Your task to perform on an android device: change notifications settings Image 0: 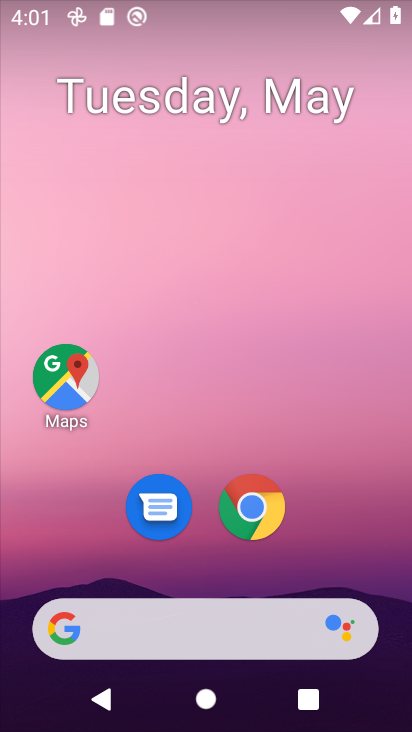
Step 0: drag from (321, 546) to (280, 120)
Your task to perform on an android device: change notifications settings Image 1: 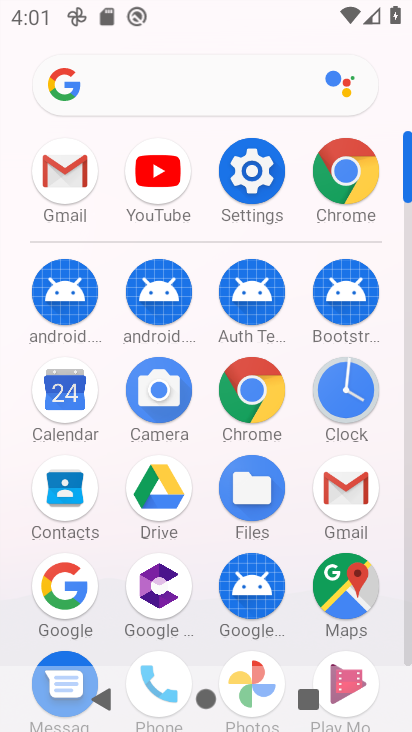
Step 1: click (233, 176)
Your task to perform on an android device: change notifications settings Image 2: 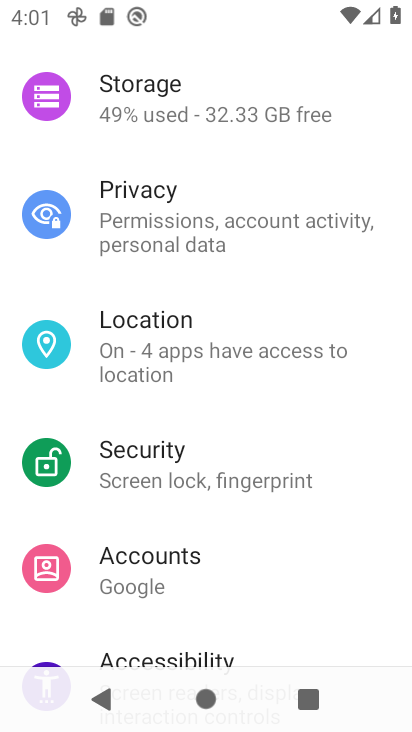
Step 2: drag from (237, 394) to (238, 521)
Your task to perform on an android device: change notifications settings Image 3: 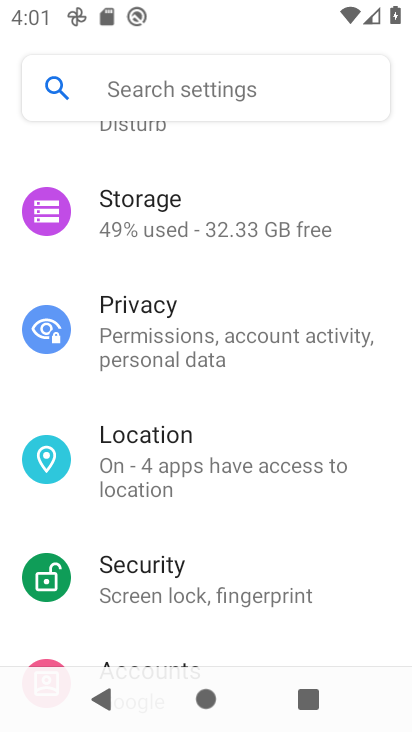
Step 3: drag from (299, 354) to (302, 524)
Your task to perform on an android device: change notifications settings Image 4: 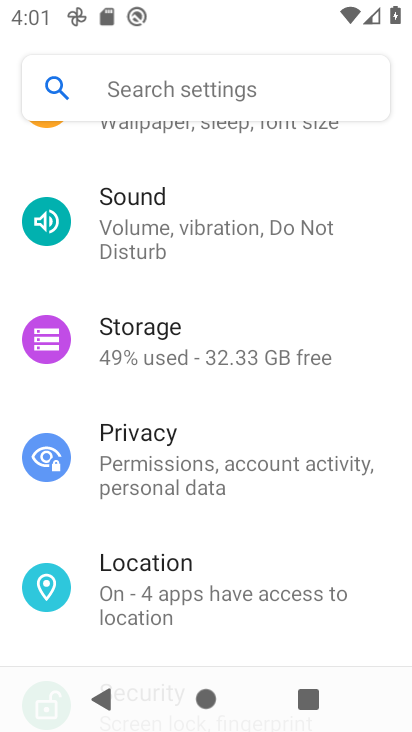
Step 4: drag from (241, 315) to (295, 514)
Your task to perform on an android device: change notifications settings Image 5: 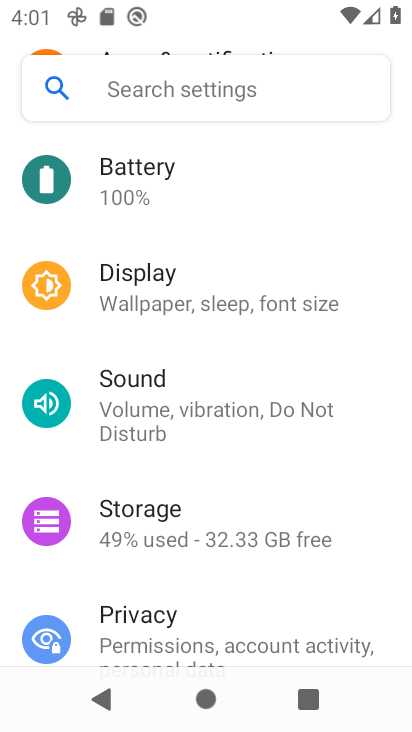
Step 5: drag from (246, 381) to (276, 498)
Your task to perform on an android device: change notifications settings Image 6: 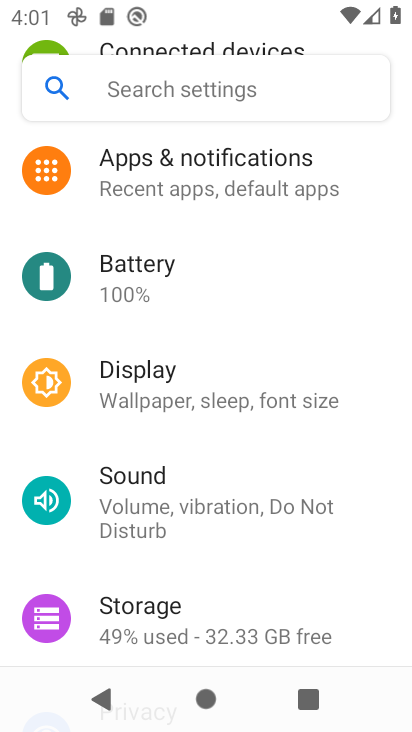
Step 6: click (216, 189)
Your task to perform on an android device: change notifications settings Image 7: 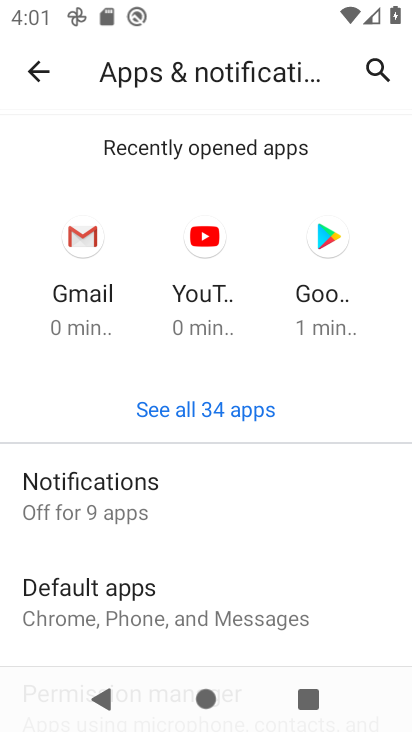
Step 7: click (167, 475)
Your task to perform on an android device: change notifications settings Image 8: 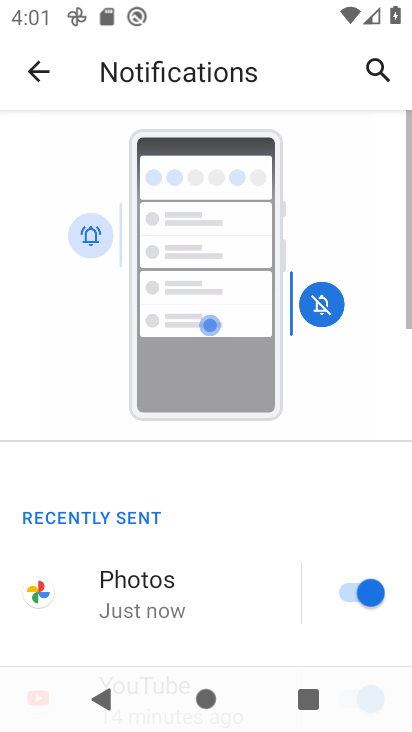
Step 8: drag from (171, 623) to (166, 170)
Your task to perform on an android device: change notifications settings Image 9: 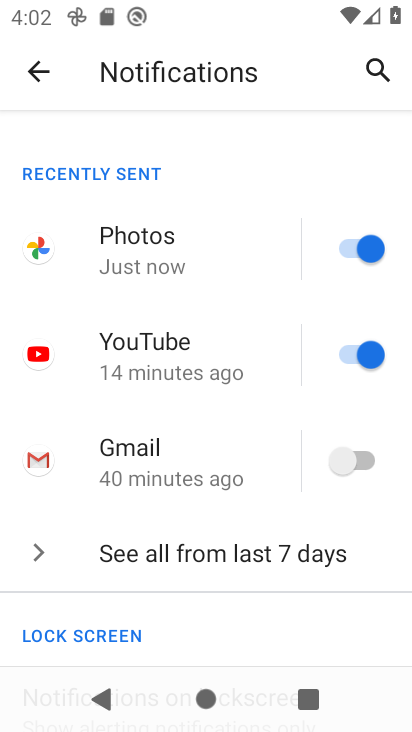
Step 9: click (182, 553)
Your task to perform on an android device: change notifications settings Image 10: 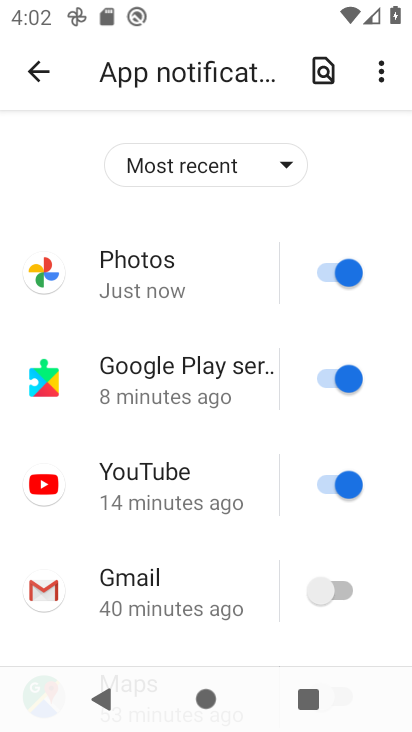
Step 10: click (354, 258)
Your task to perform on an android device: change notifications settings Image 11: 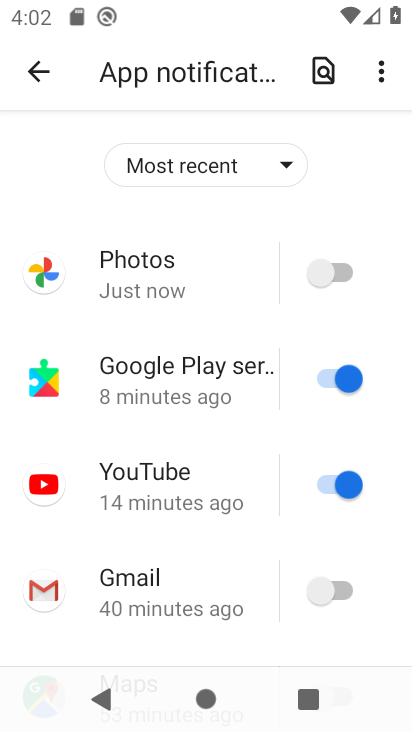
Step 11: click (333, 380)
Your task to perform on an android device: change notifications settings Image 12: 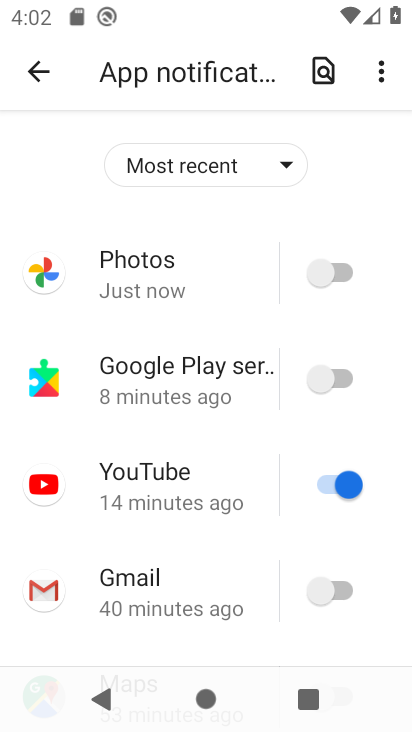
Step 12: click (321, 476)
Your task to perform on an android device: change notifications settings Image 13: 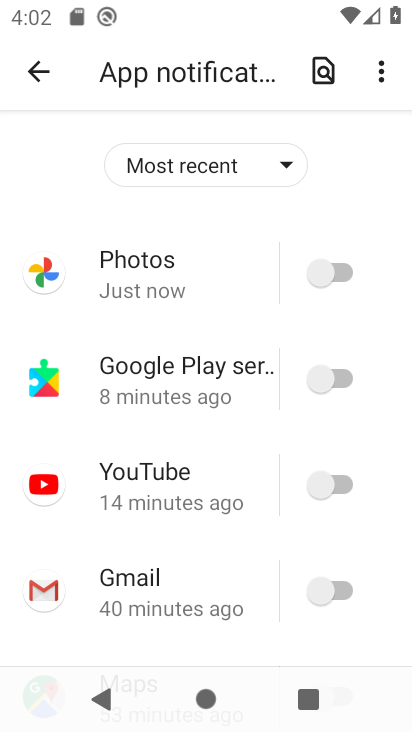
Step 13: click (343, 599)
Your task to perform on an android device: change notifications settings Image 14: 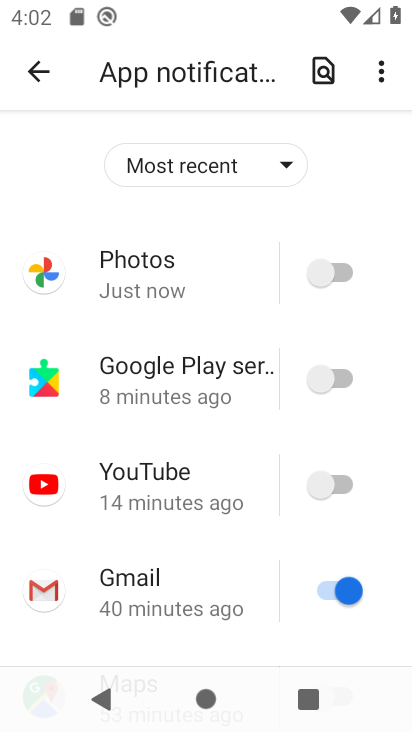
Step 14: drag from (226, 592) to (237, 245)
Your task to perform on an android device: change notifications settings Image 15: 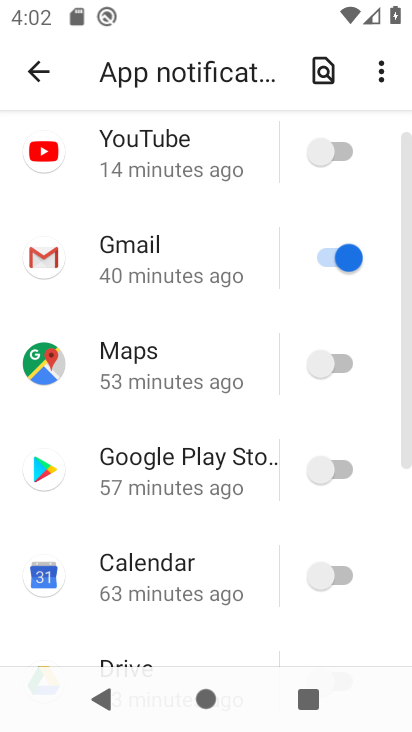
Step 15: click (324, 373)
Your task to perform on an android device: change notifications settings Image 16: 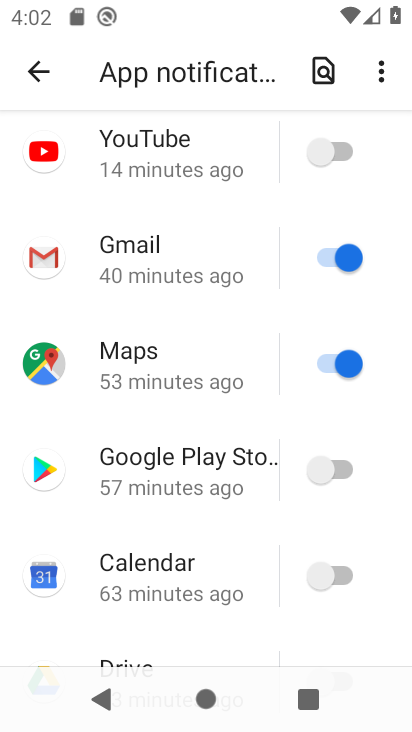
Step 16: click (325, 481)
Your task to perform on an android device: change notifications settings Image 17: 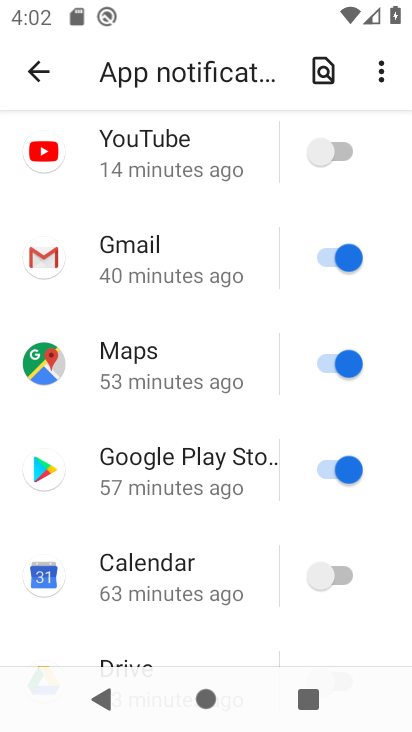
Step 17: click (348, 574)
Your task to perform on an android device: change notifications settings Image 18: 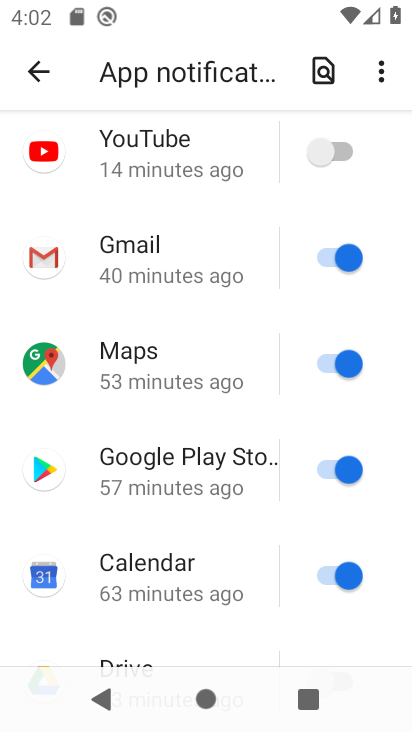
Step 18: drag from (264, 526) to (277, 149)
Your task to perform on an android device: change notifications settings Image 19: 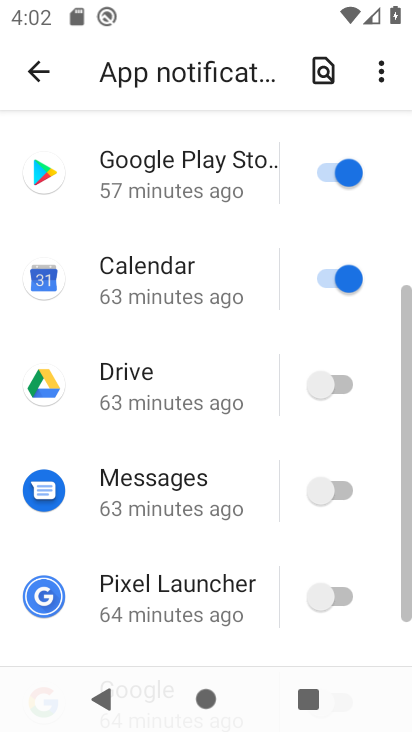
Step 19: click (326, 379)
Your task to perform on an android device: change notifications settings Image 20: 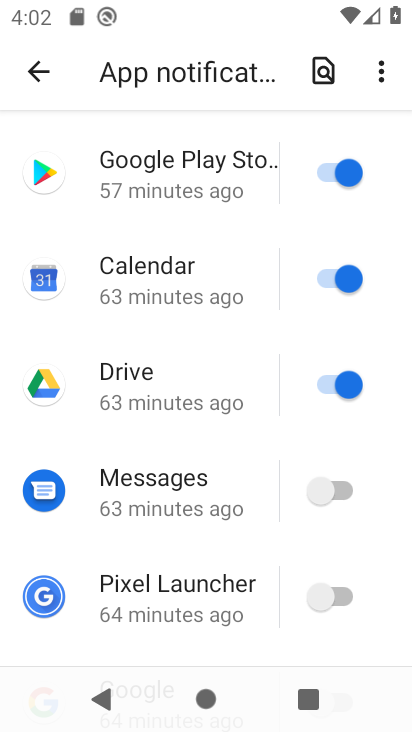
Step 20: click (317, 503)
Your task to perform on an android device: change notifications settings Image 21: 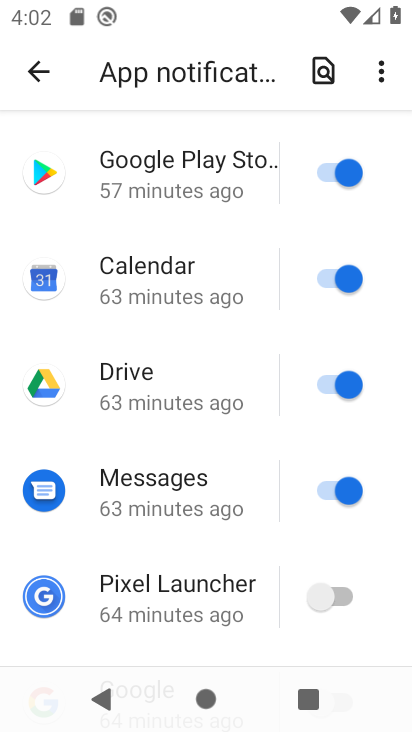
Step 21: click (342, 595)
Your task to perform on an android device: change notifications settings Image 22: 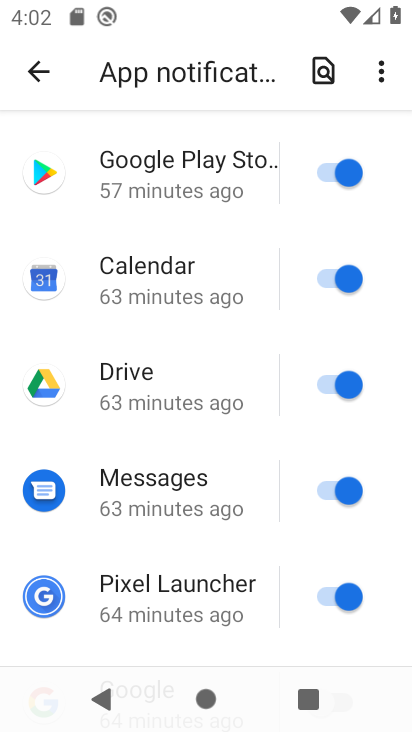
Step 22: drag from (179, 585) to (205, 220)
Your task to perform on an android device: change notifications settings Image 23: 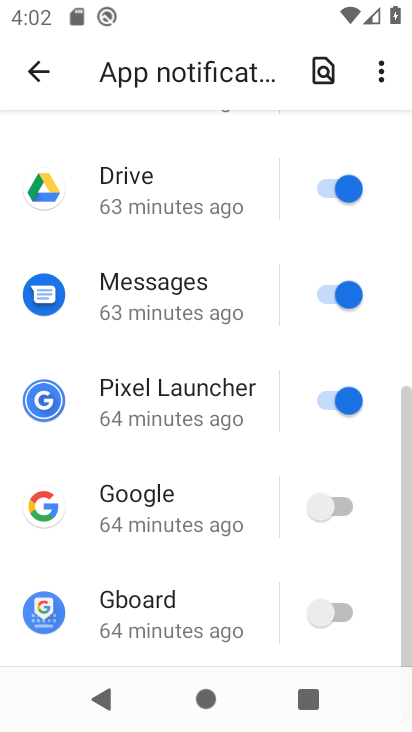
Step 23: click (308, 516)
Your task to perform on an android device: change notifications settings Image 24: 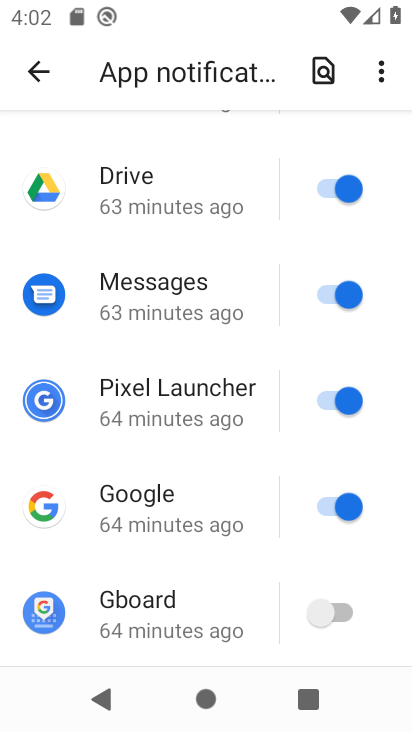
Step 24: click (324, 626)
Your task to perform on an android device: change notifications settings Image 25: 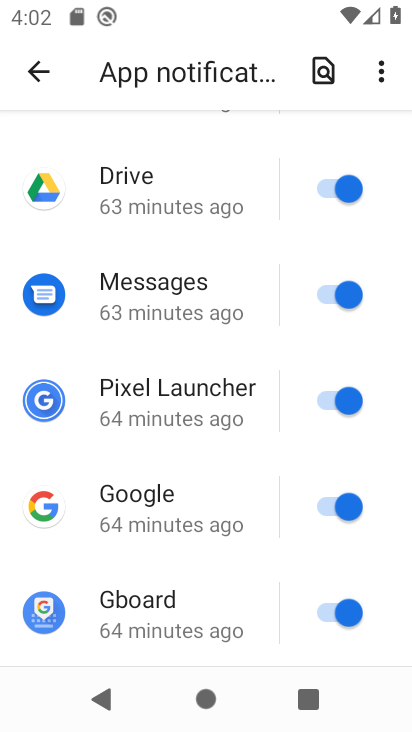
Step 25: click (56, 89)
Your task to perform on an android device: change notifications settings Image 26: 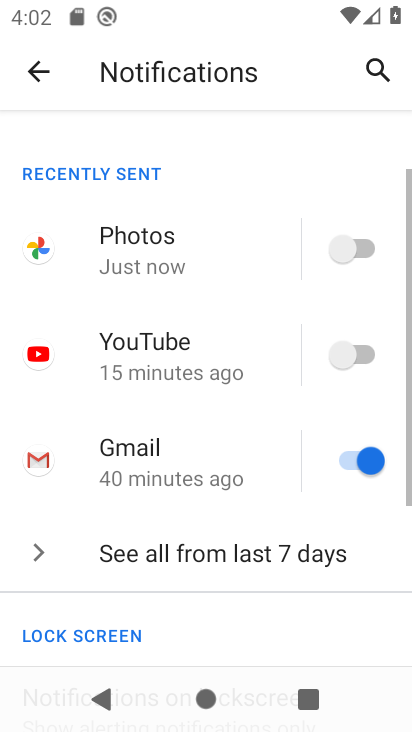
Step 26: drag from (214, 559) to (222, 87)
Your task to perform on an android device: change notifications settings Image 27: 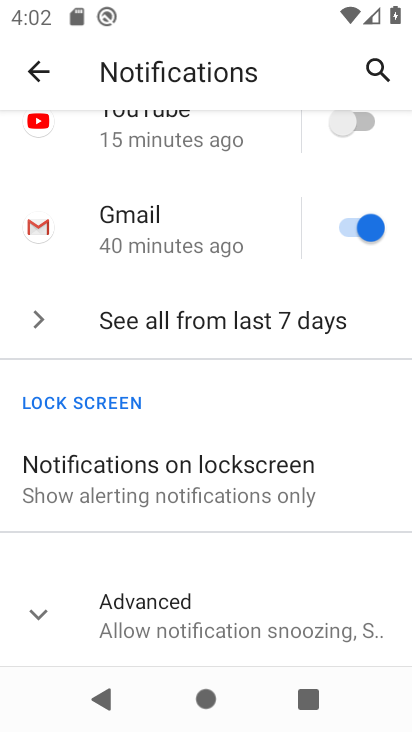
Step 27: click (118, 488)
Your task to perform on an android device: change notifications settings Image 28: 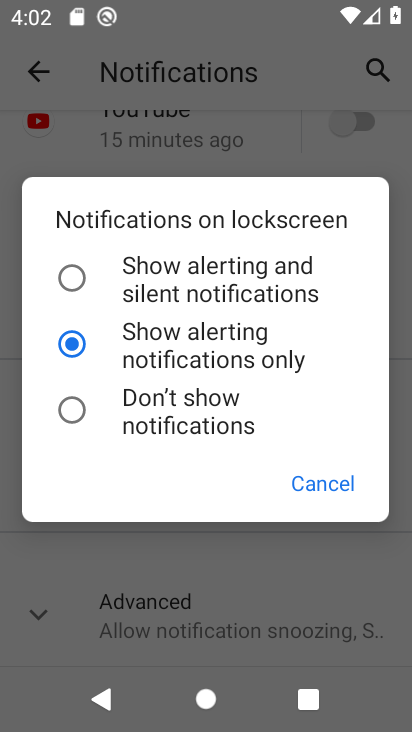
Step 28: click (124, 262)
Your task to perform on an android device: change notifications settings Image 29: 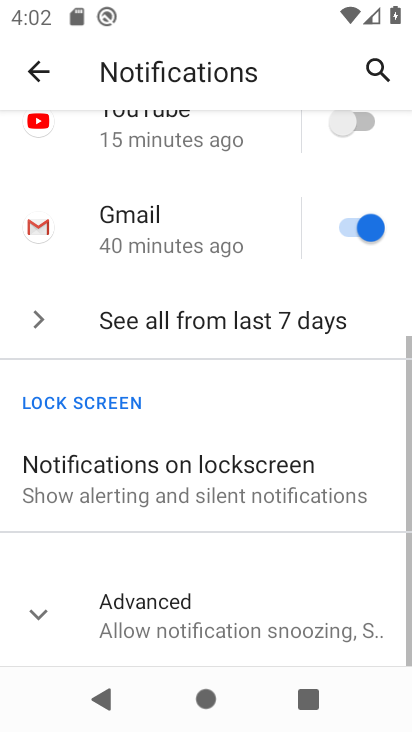
Step 29: click (124, 589)
Your task to perform on an android device: change notifications settings Image 30: 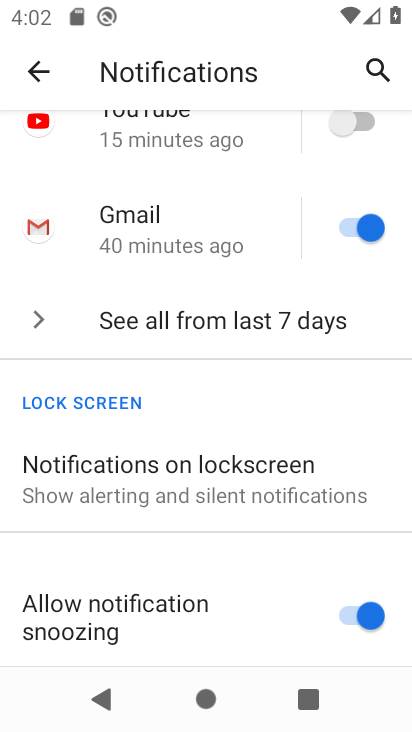
Step 30: drag from (83, 556) to (218, 59)
Your task to perform on an android device: change notifications settings Image 31: 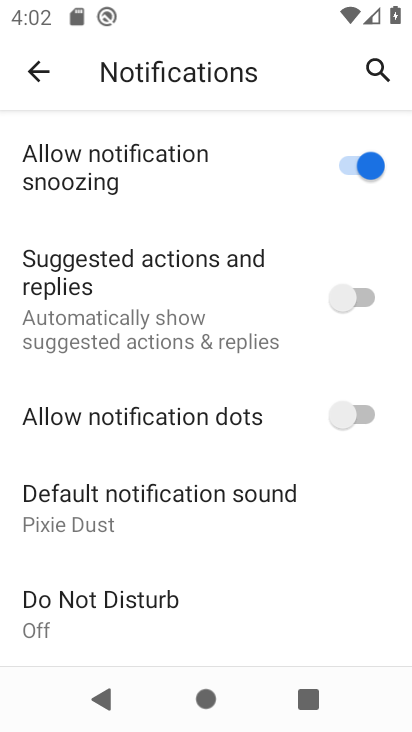
Step 31: click (348, 181)
Your task to perform on an android device: change notifications settings Image 32: 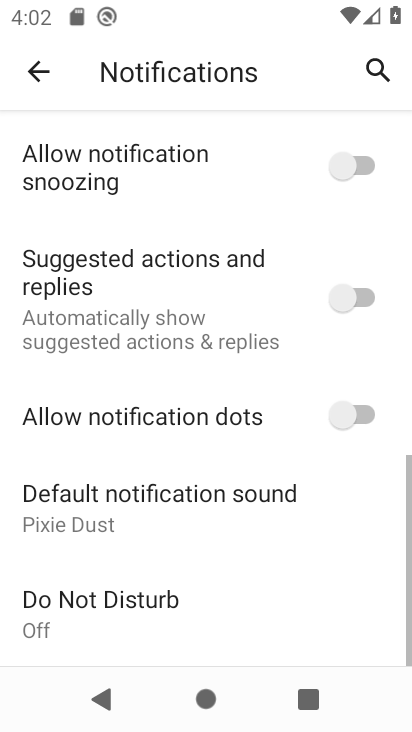
Step 32: click (349, 304)
Your task to perform on an android device: change notifications settings Image 33: 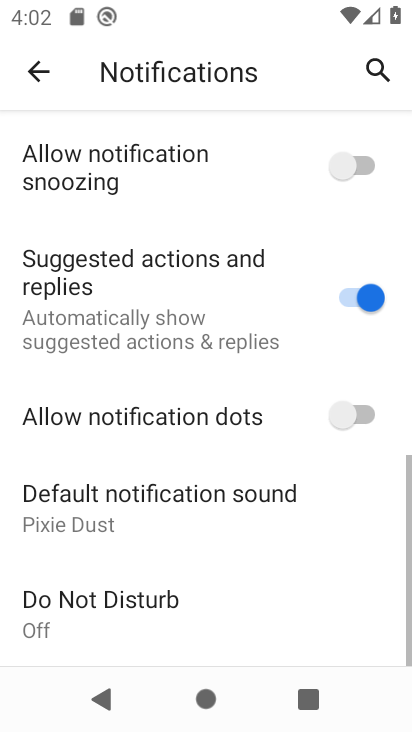
Step 33: click (356, 405)
Your task to perform on an android device: change notifications settings Image 34: 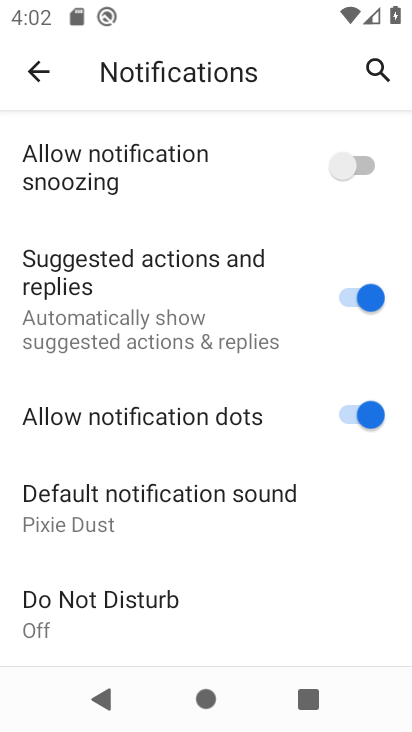
Step 34: task complete